Your task to perform on an android device: turn pop-ups on in chrome Image 0: 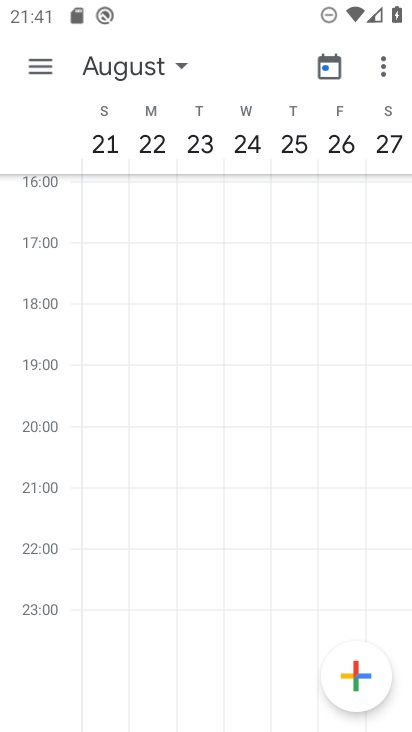
Step 0: press home button
Your task to perform on an android device: turn pop-ups on in chrome Image 1: 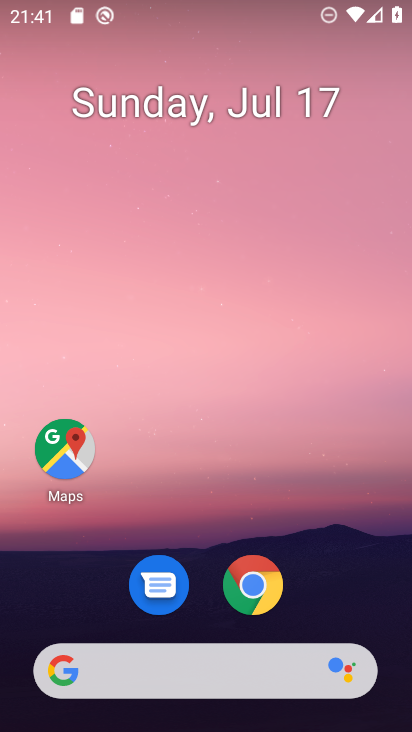
Step 1: drag from (202, 682) to (327, 23)
Your task to perform on an android device: turn pop-ups on in chrome Image 2: 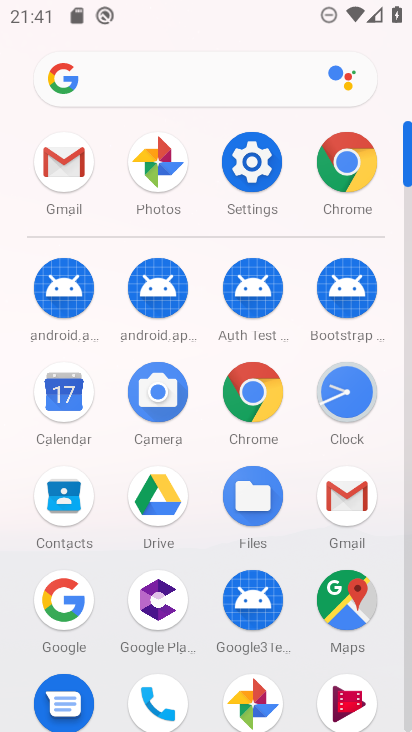
Step 2: click (342, 180)
Your task to perform on an android device: turn pop-ups on in chrome Image 3: 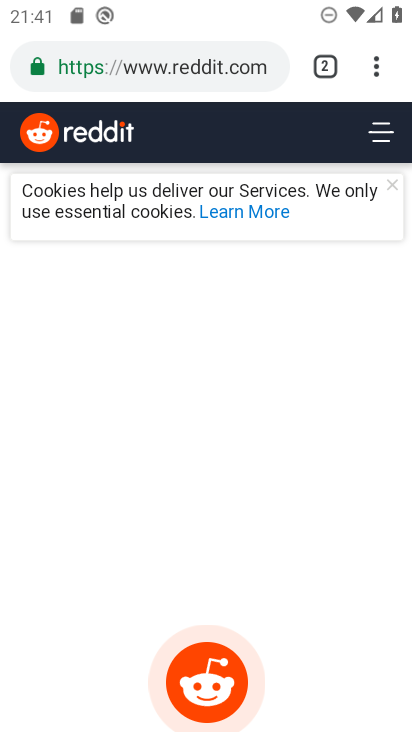
Step 3: drag from (370, 67) to (188, 579)
Your task to perform on an android device: turn pop-ups on in chrome Image 4: 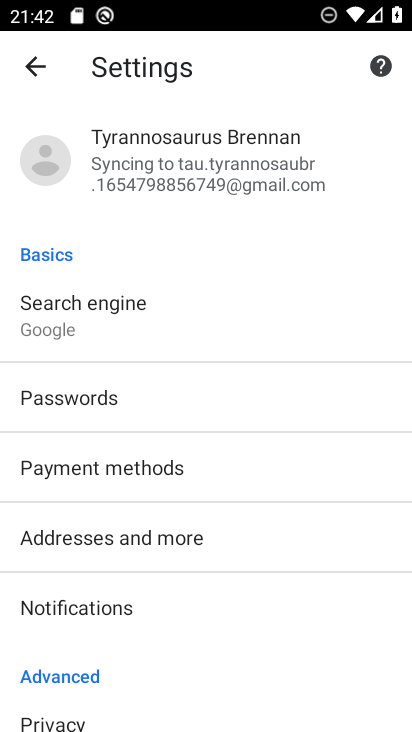
Step 4: drag from (147, 635) to (192, 221)
Your task to perform on an android device: turn pop-ups on in chrome Image 5: 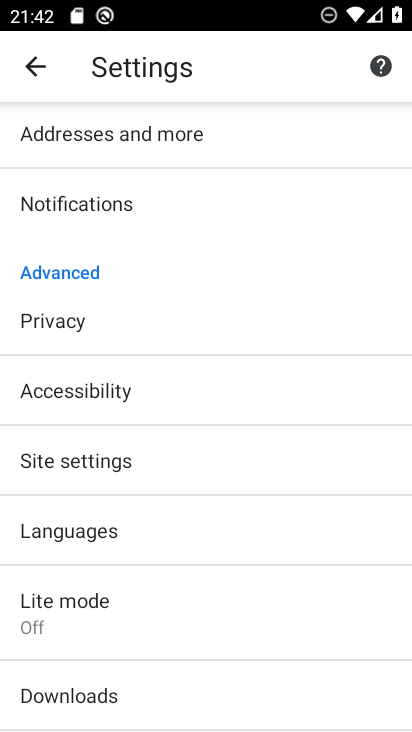
Step 5: click (121, 465)
Your task to perform on an android device: turn pop-ups on in chrome Image 6: 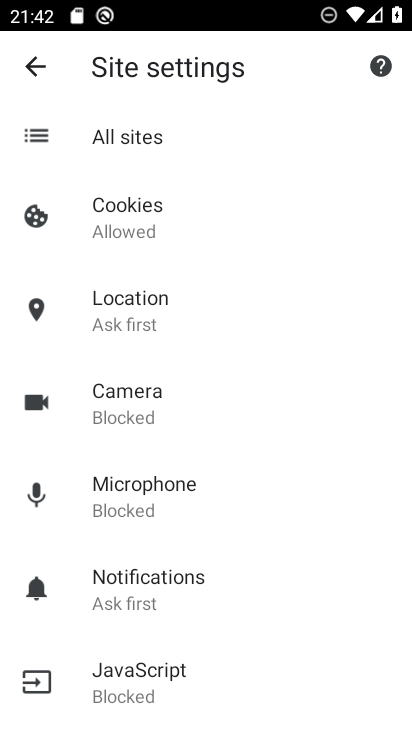
Step 6: drag from (190, 653) to (240, 242)
Your task to perform on an android device: turn pop-ups on in chrome Image 7: 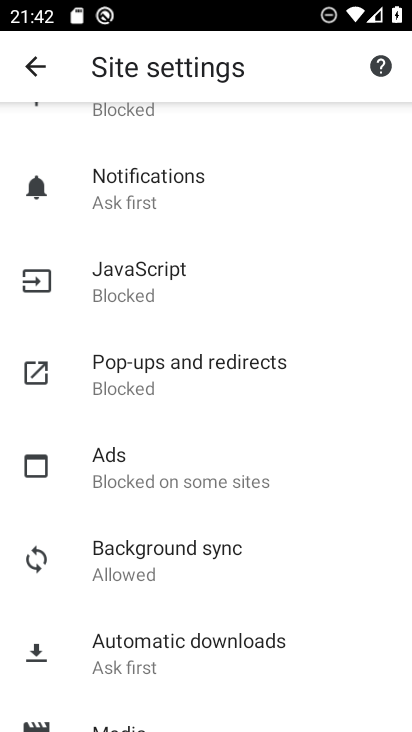
Step 7: click (162, 381)
Your task to perform on an android device: turn pop-ups on in chrome Image 8: 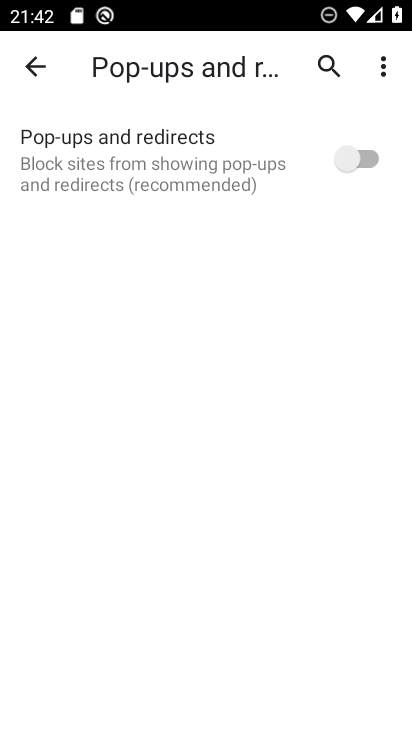
Step 8: click (365, 156)
Your task to perform on an android device: turn pop-ups on in chrome Image 9: 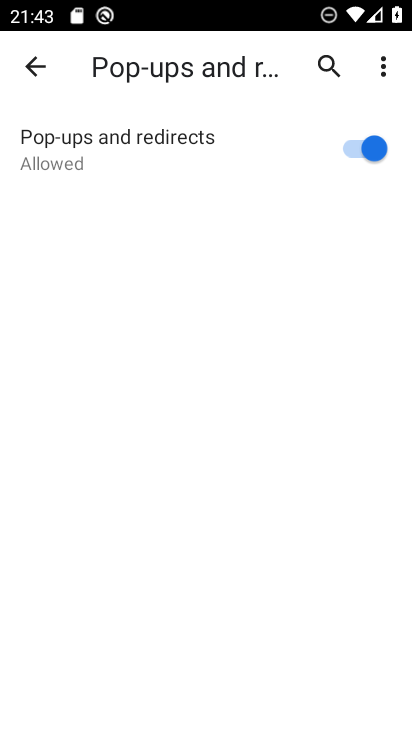
Step 9: task complete